Your task to perform on an android device: delete location history Image 0: 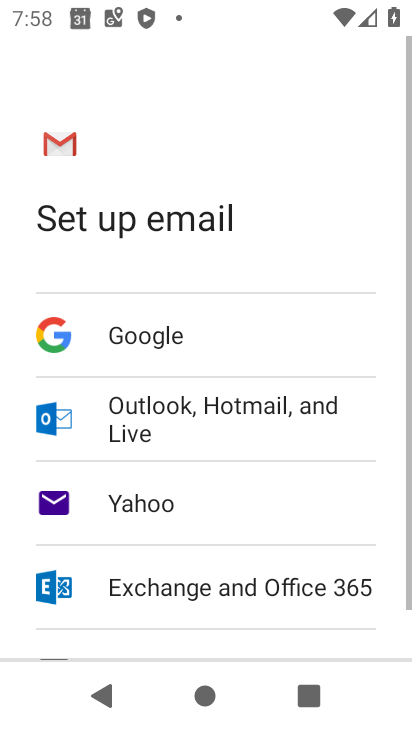
Step 0: press home button
Your task to perform on an android device: delete location history Image 1: 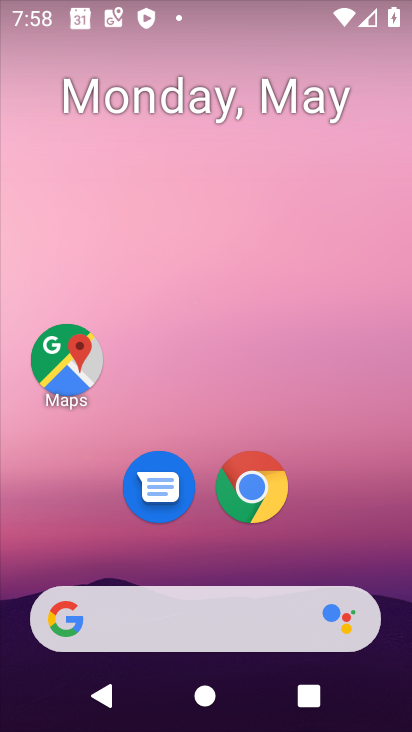
Step 1: drag from (372, 539) to (374, 141)
Your task to perform on an android device: delete location history Image 2: 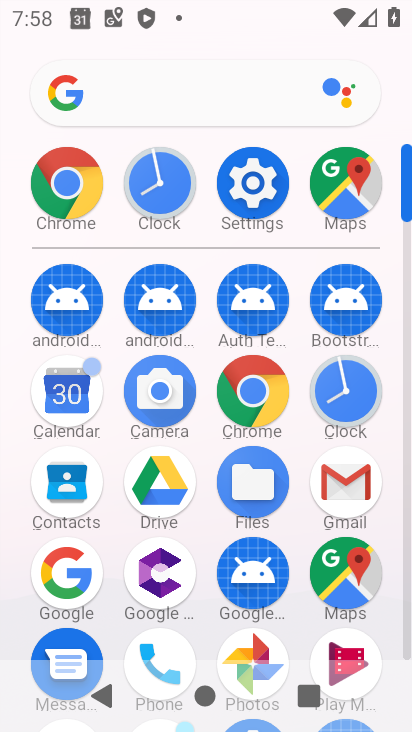
Step 2: click (267, 203)
Your task to perform on an android device: delete location history Image 3: 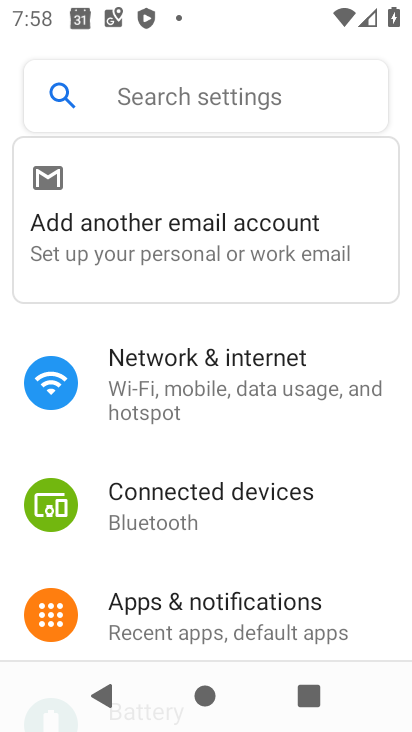
Step 3: drag from (343, 527) to (360, 414)
Your task to perform on an android device: delete location history Image 4: 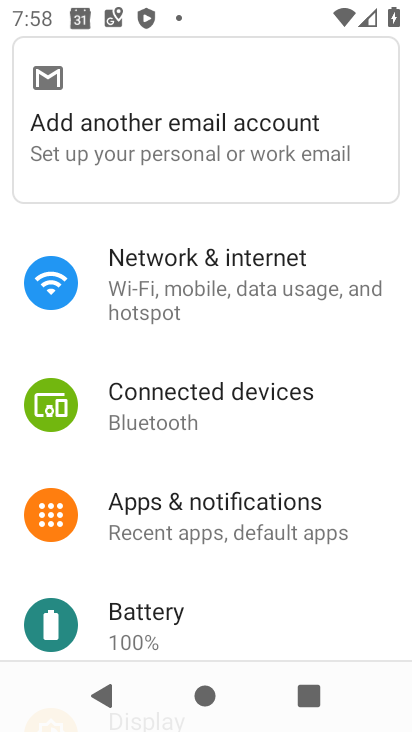
Step 4: drag from (356, 501) to (359, 395)
Your task to perform on an android device: delete location history Image 5: 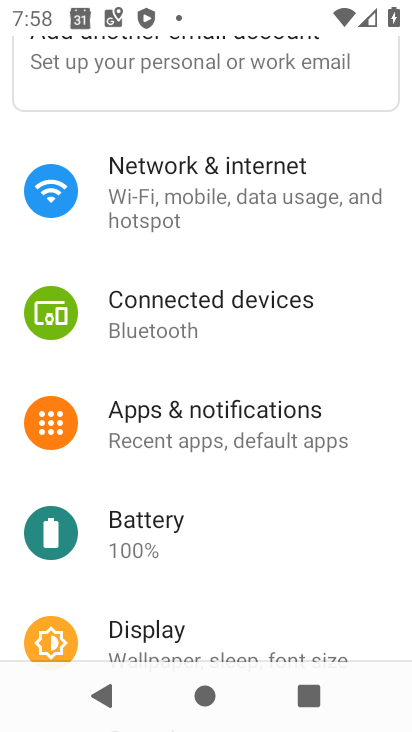
Step 5: drag from (351, 491) to (346, 367)
Your task to perform on an android device: delete location history Image 6: 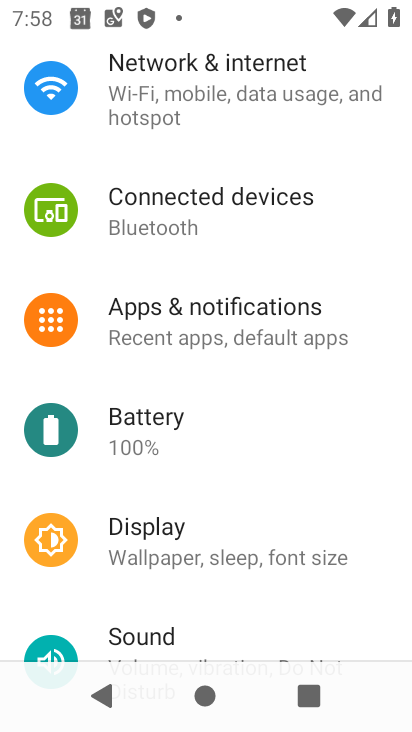
Step 6: drag from (355, 465) to (363, 365)
Your task to perform on an android device: delete location history Image 7: 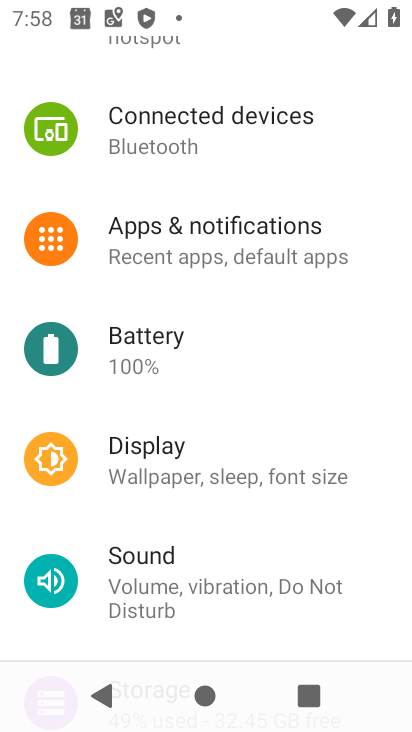
Step 7: drag from (371, 524) to (380, 401)
Your task to perform on an android device: delete location history Image 8: 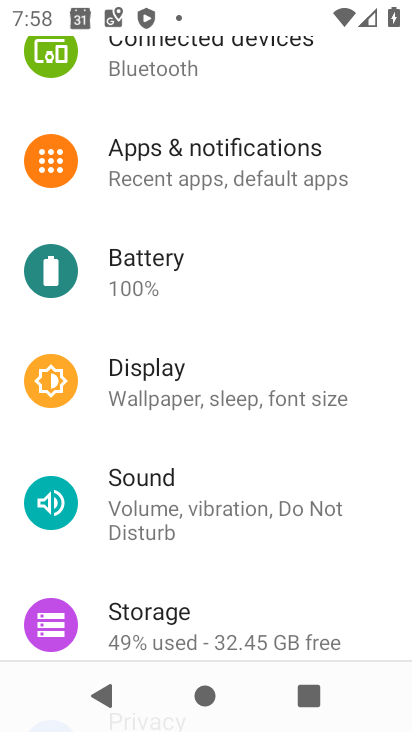
Step 8: drag from (365, 539) to (371, 365)
Your task to perform on an android device: delete location history Image 9: 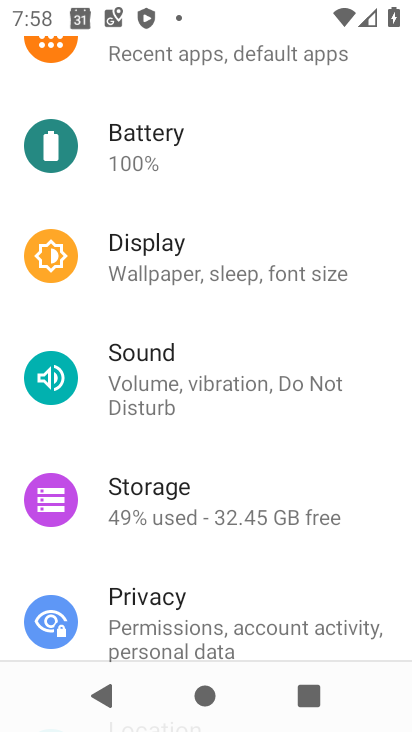
Step 9: drag from (370, 511) to (376, 375)
Your task to perform on an android device: delete location history Image 10: 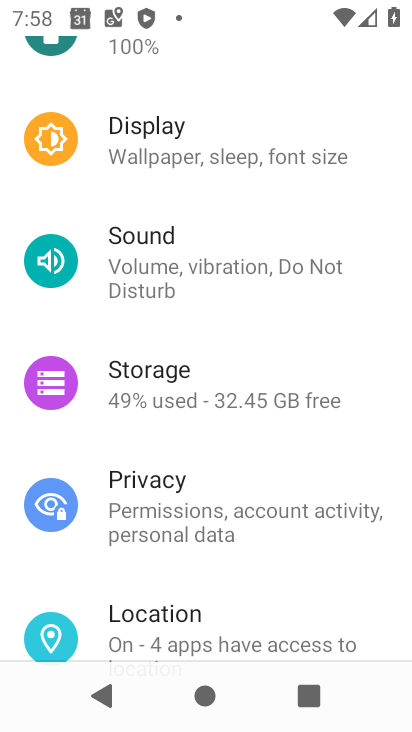
Step 10: drag from (372, 572) to (380, 410)
Your task to perform on an android device: delete location history Image 11: 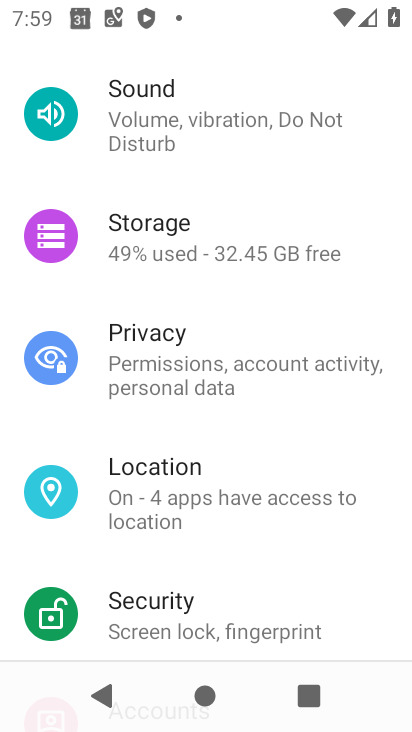
Step 11: drag from (369, 573) to (376, 393)
Your task to perform on an android device: delete location history Image 12: 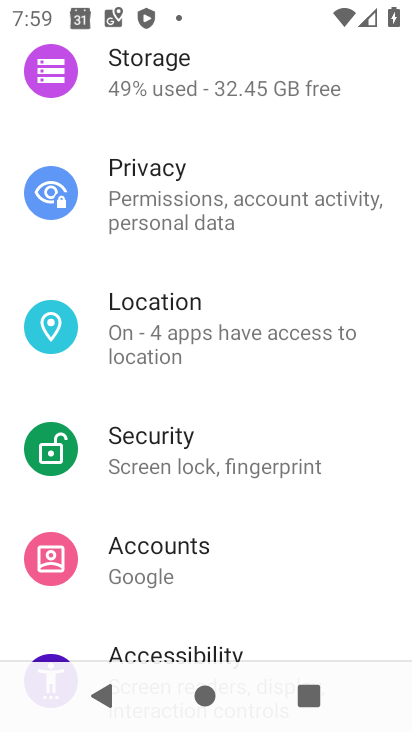
Step 12: click (321, 327)
Your task to perform on an android device: delete location history Image 13: 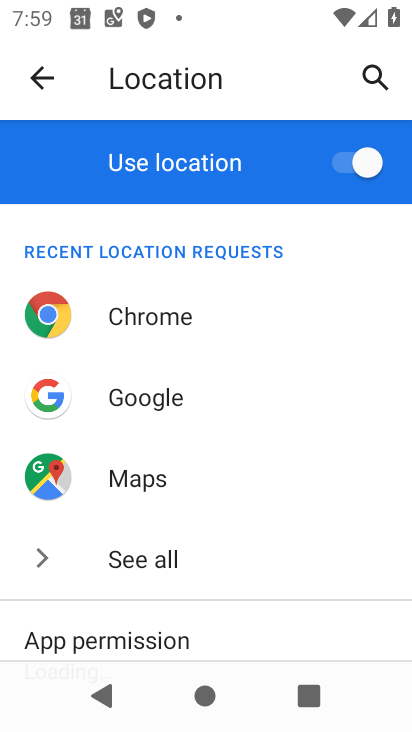
Step 13: drag from (311, 519) to (345, 347)
Your task to perform on an android device: delete location history Image 14: 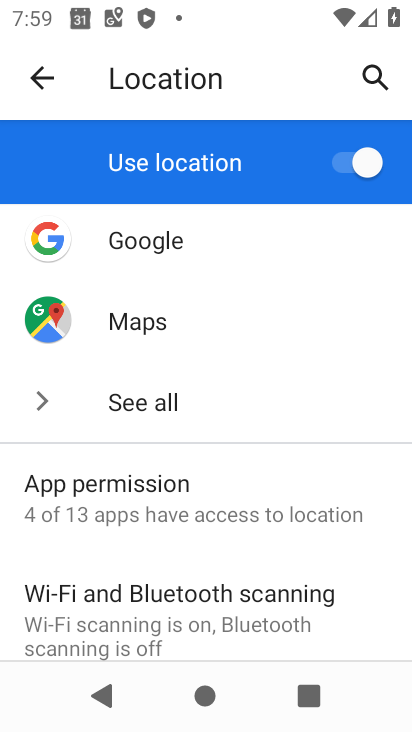
Step 14: drag from (368, 556) to (369, 401)
Your task to perform on an android device: delete location history Image 15: 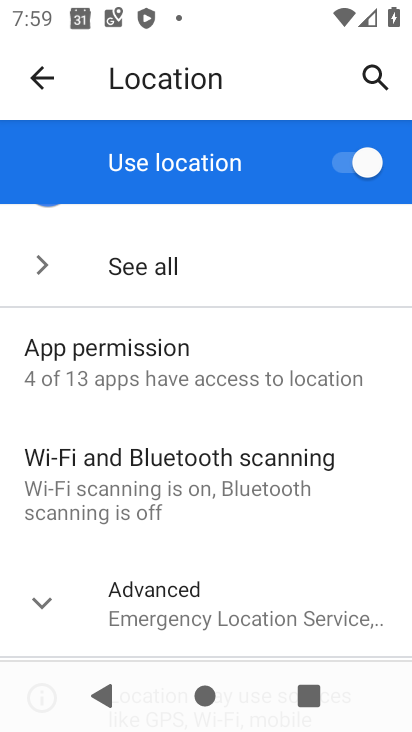
Step 15: drag from (370, 547) to (381, 346)
Your task to perform on an android device: delete location history Image 16: 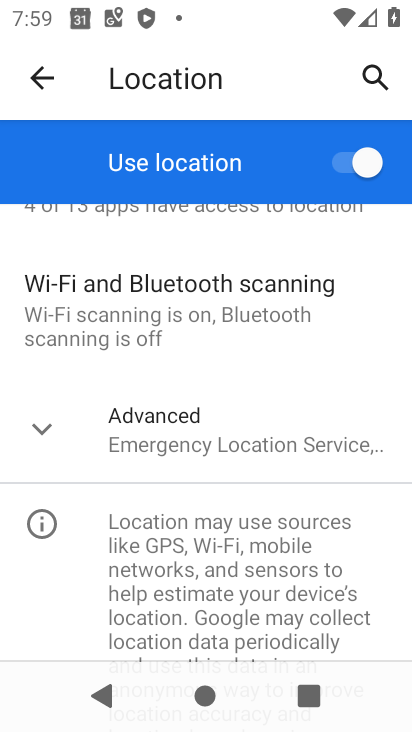
Step 16: drag from (360, 580) to (370, 386)
Your task to perform on an android device: delete location history Image 17: 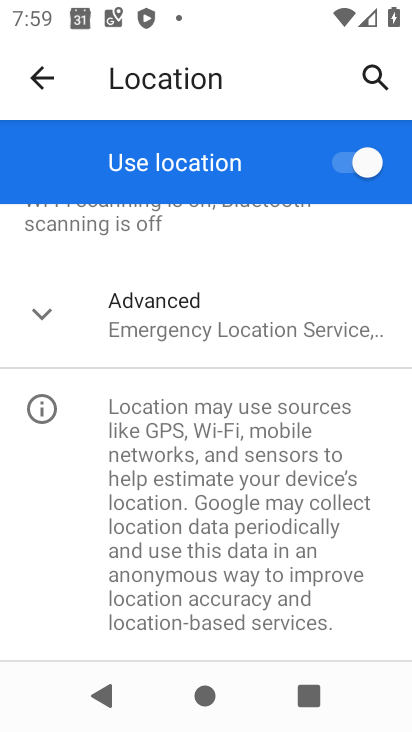
Step 17: click (310, 314)
Your task to perform on an android device: delete location history Image 18: 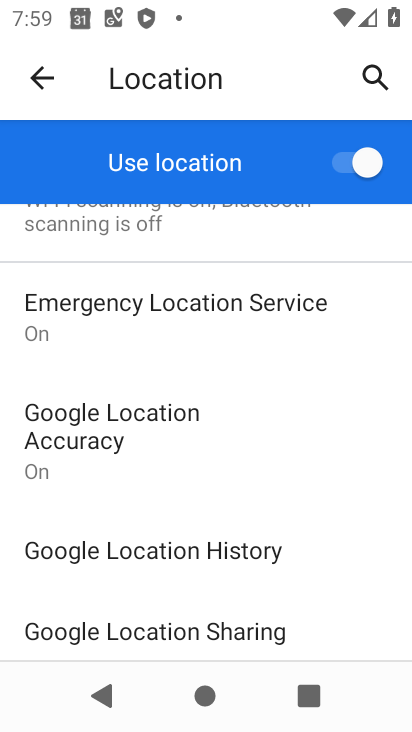
Step 18: drag from (330, 507) to (359, 376)
Your task to perform on an android device: delete location history Image 19: 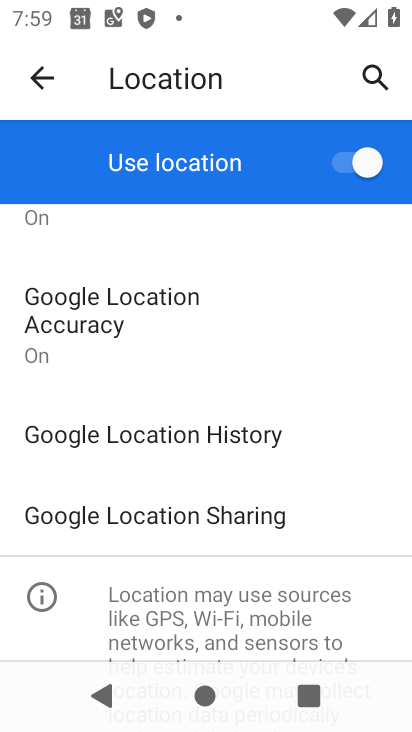
Step 19: click (236, 441)
Your task to perform on an android device: delete location history Image 20: 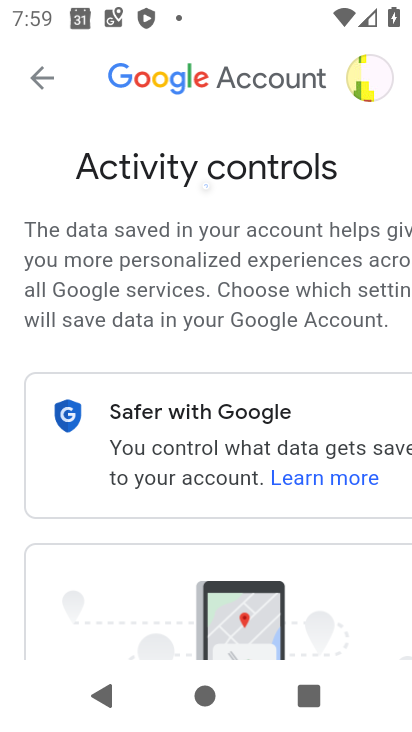
Step 20: drag from (153, 538) to (172, 266)
Your task to perform on an android device: delete location history Image 21: 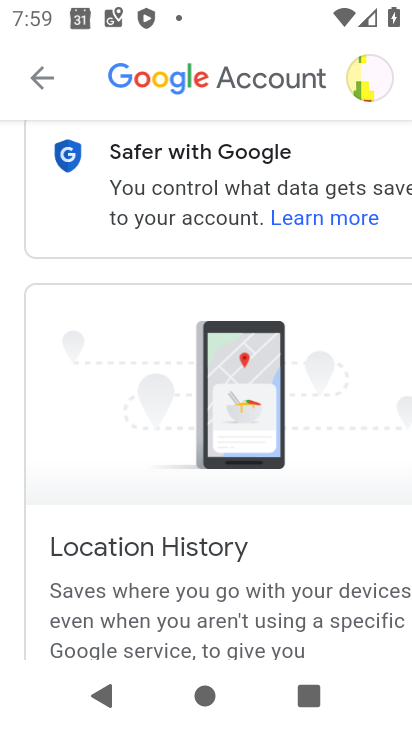
Step 21: drag from (168, 545) to (168, 332)
Your task to perform on an android device: delete location history Image 22: 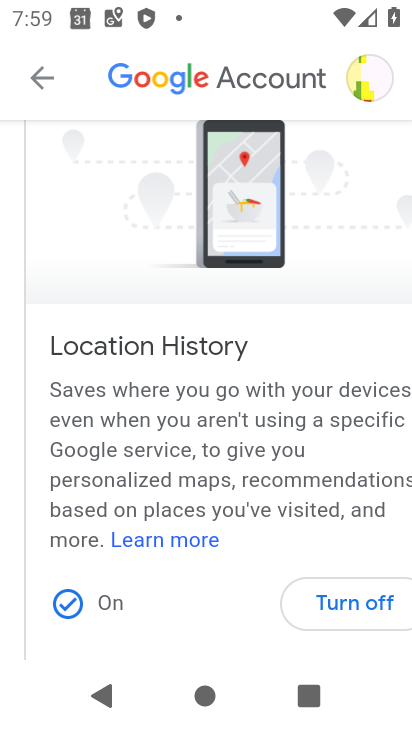
Step 22: click (377, 598)
Your task to perform on an android device: delete location history Image 23: 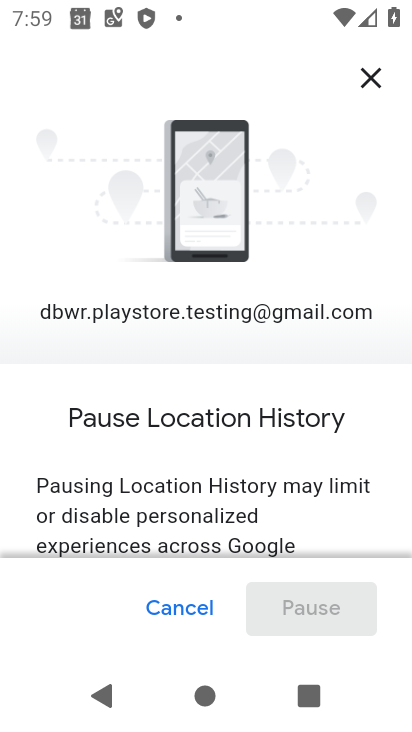
Step 23: drag from (163, 482) to (188, 344)
Your task to perform on an android device: delete location history Image 24: 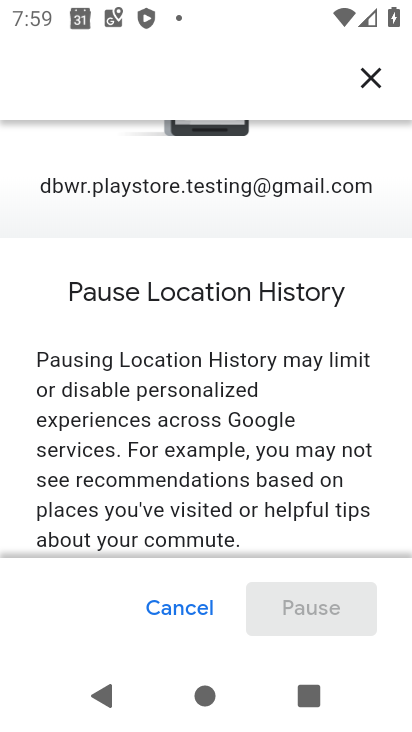
Step 24: drag from (196, 479) to (193, 353)
Your task to perform on an android device: delete location history Image 25: 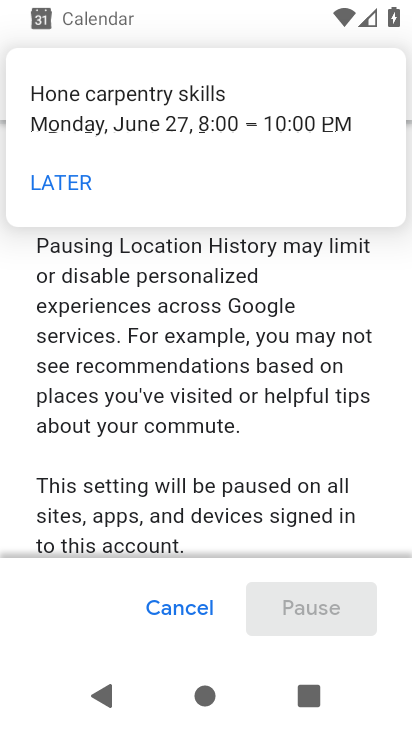
Step 25: drag from (193, 498) to (201, 346)
Your task to perform on an android device: delete location history Image 26: 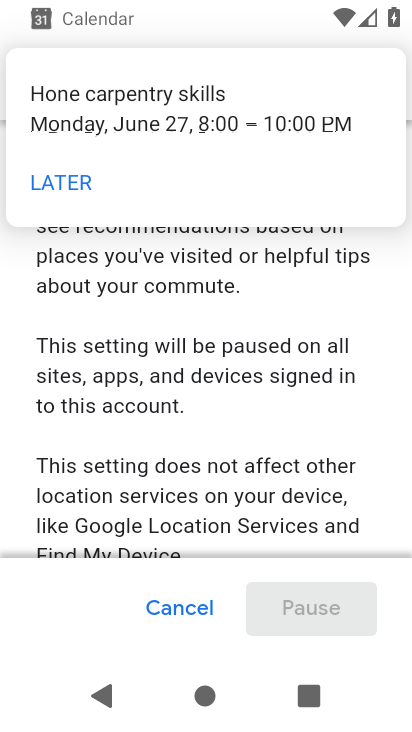
Step 26: drag from (207, 502) to (207, 373)
Your task to perform on an android device: delete location history Image 27: 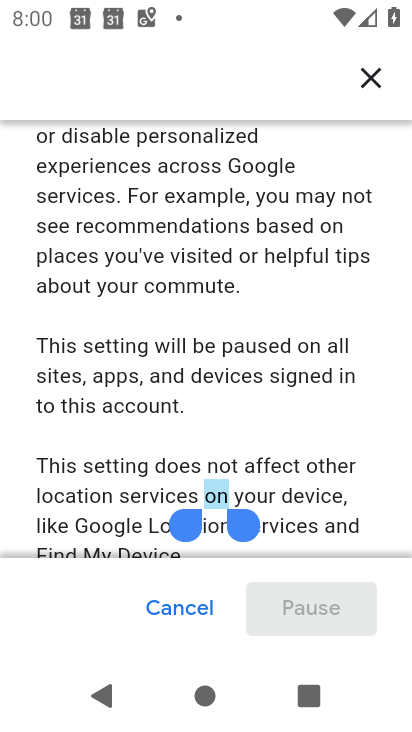
Step 27: drag from (261, 481) to (269, 328)
Your task to perform on an android device: delete location history Image 28: 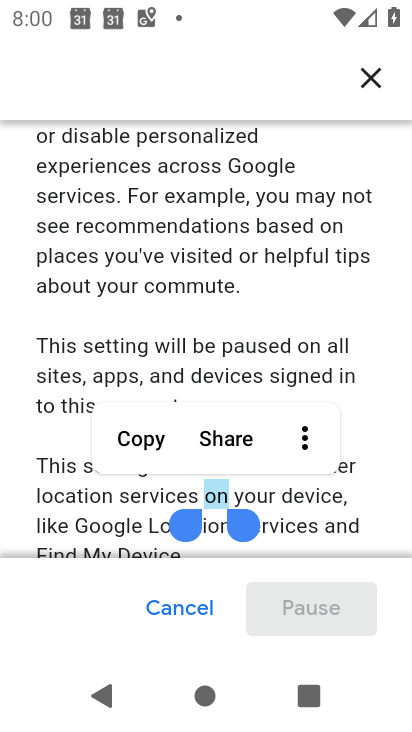
Step 28: drag from (371, 435) to (373, 298)
Your task to perform on an android device: delete location history Image 29: 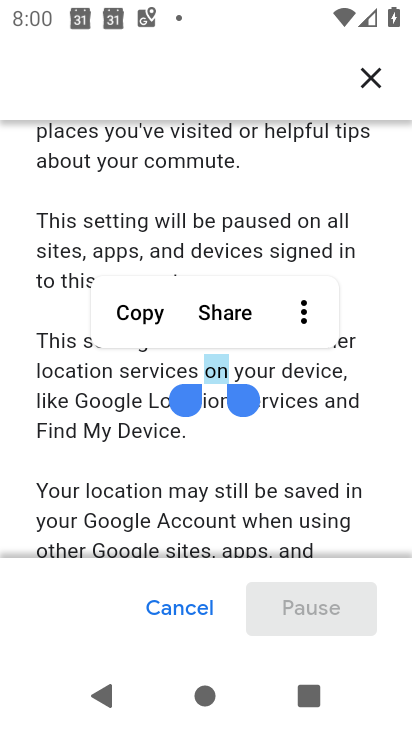
Step 29: drag from (374, 506) to (382, 248)
Your task to perform on an android device: delete location history Image 30: 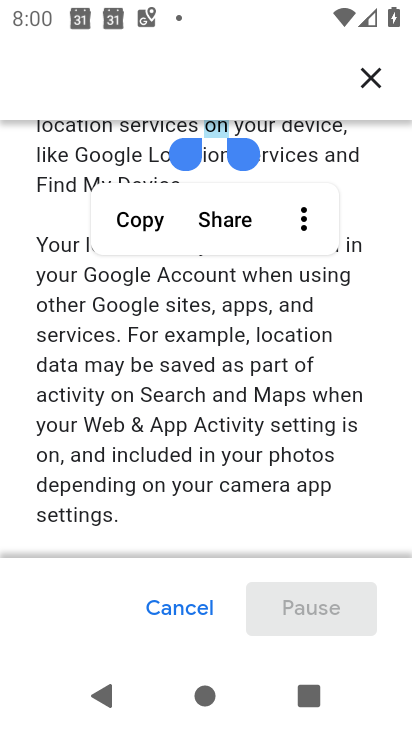
Step 30: drag from (370, 481) to (378, 255)
Your task to perform on an android device: delete location history Image 31: 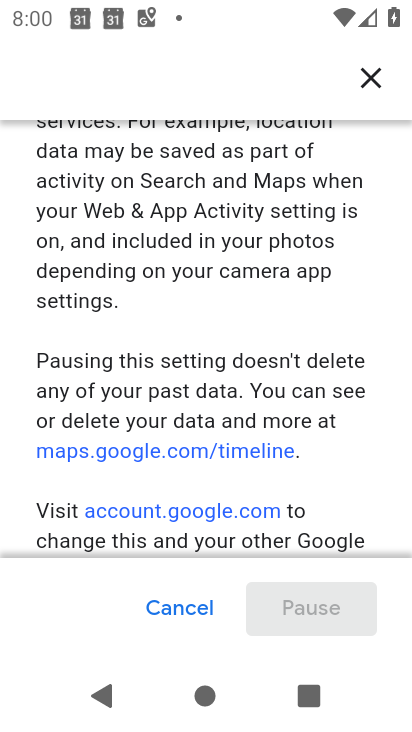
Step 31: drag from (352, 477) to (363, 286)
Your task to perform on an android device: delete location history Image 32: 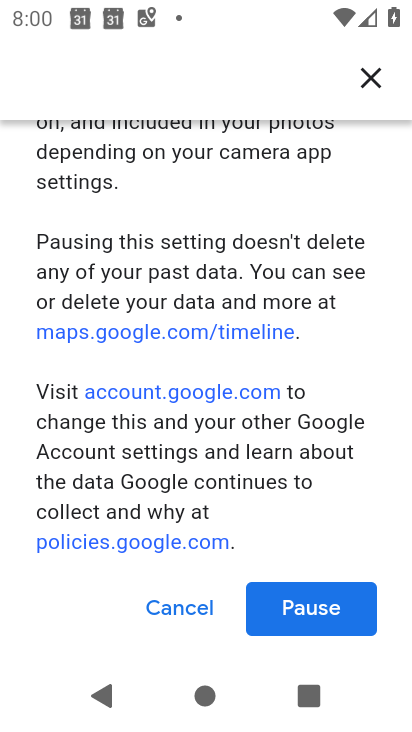
Step 32: click (312, 616)
Your task to perform on an android device: delete location history Image 33: 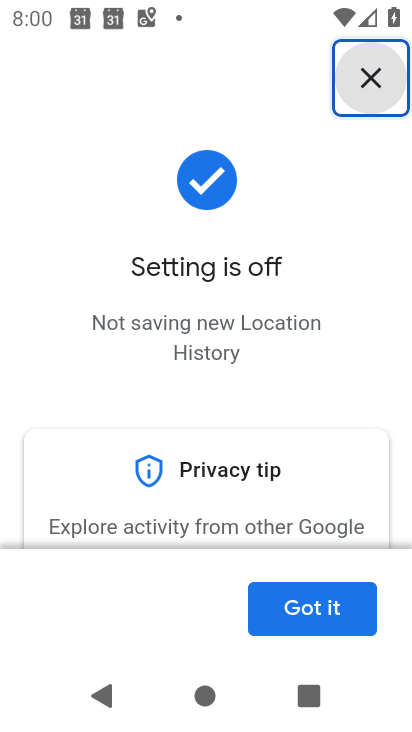
Step 33: task complete